Your task to perform on an android device: Go to location settings Image 0: 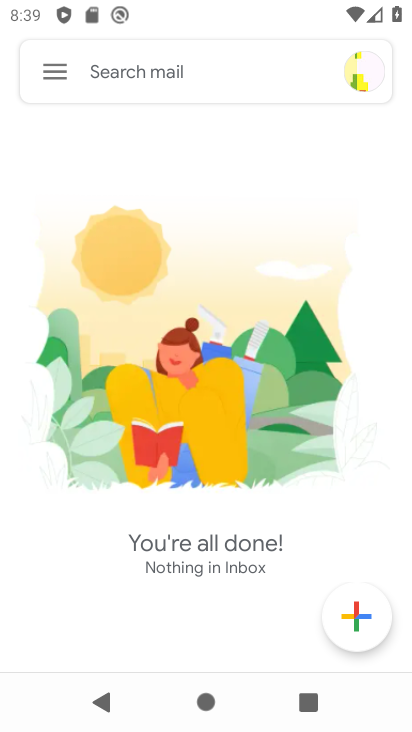
Step 0: press home button
Your task to perform on an android device: Go to location settings Image 1: 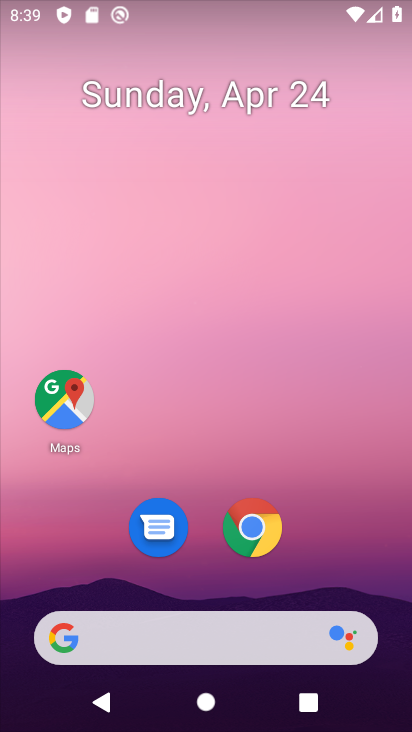
Step 1: drag from (353, 576) to (393, 3)
Your task to perform on an android device: Go to location settings Image 2: 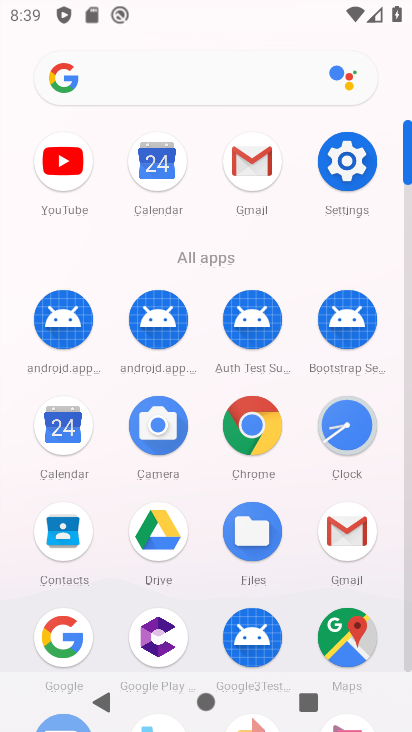
Step 2: click (351, 165)
Your task to perform on an android device: Go to location settings Image 3: 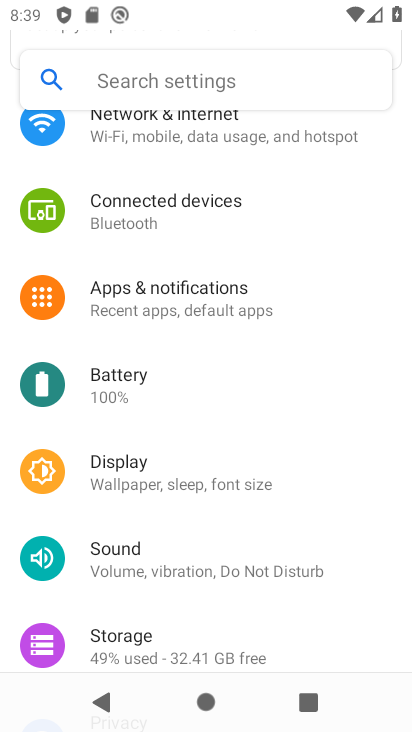
Step 3: drag from (260, 502) to (280, 170)
Your task to perform on an android device: Go to location settings Image 4: 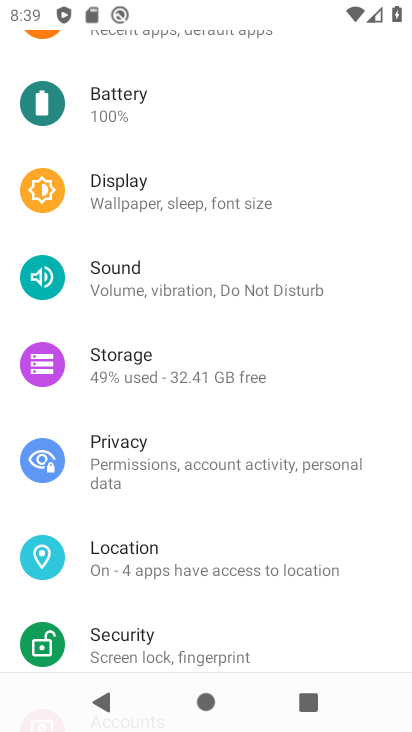
Step 4: click (152, 564)
Your task to perform on an android device: Go to location settings Image 5: 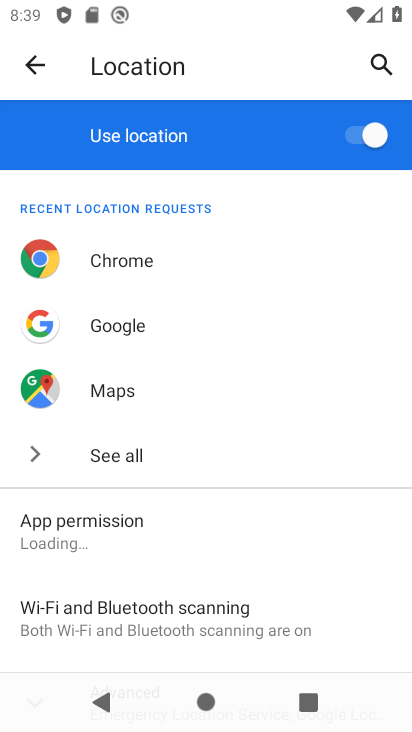
Step 5: task complete